Your task to perform on an android device: change the upload size in google photos Image 0: 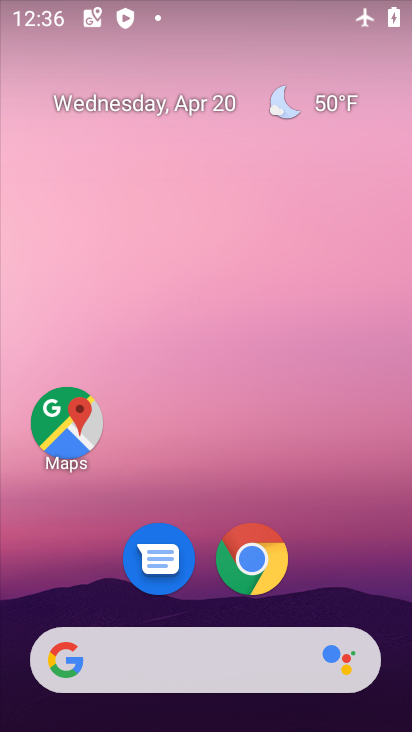
Step 0: drag from (306, 452) to (246, 57)
Your task to perform on an android device: change the upload size in google photos Image 1: 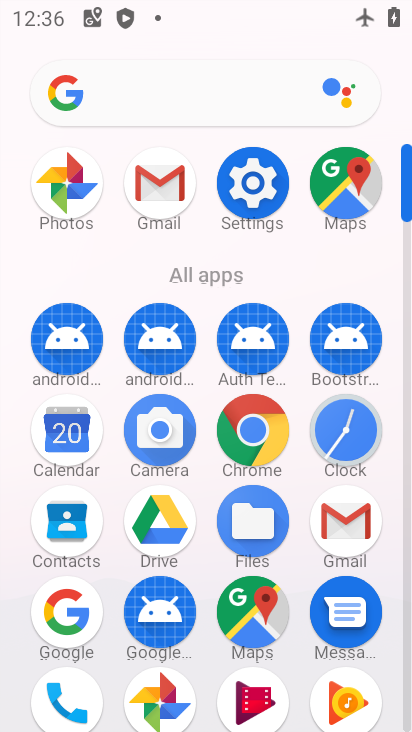
Step 1: click (158, 709)
Your task to perform on an android device: change the upload size in google photos Image 2: 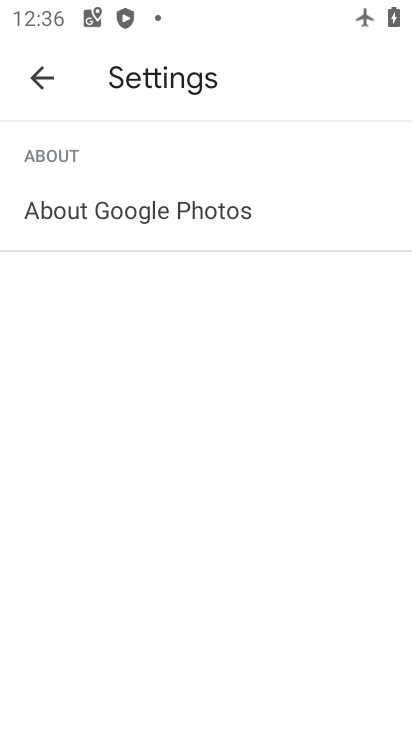
Step 2: click (44, 77)
Your task to perform on an android device: change the upload size in google photos Image 3: 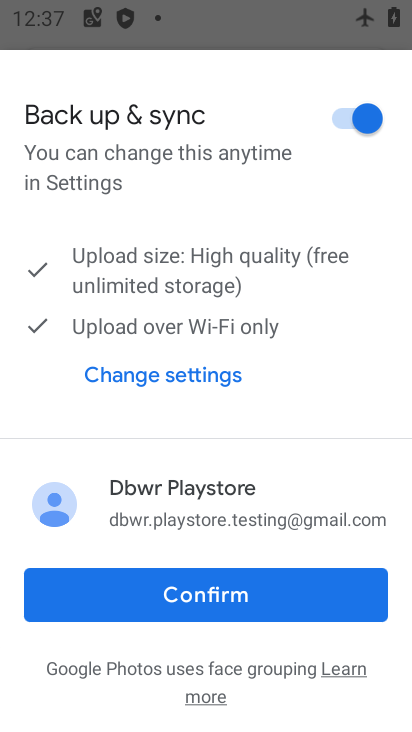
Step 3: click (185, 614)
Your task to perform on an android device: change the upload size in google photos Image 4: 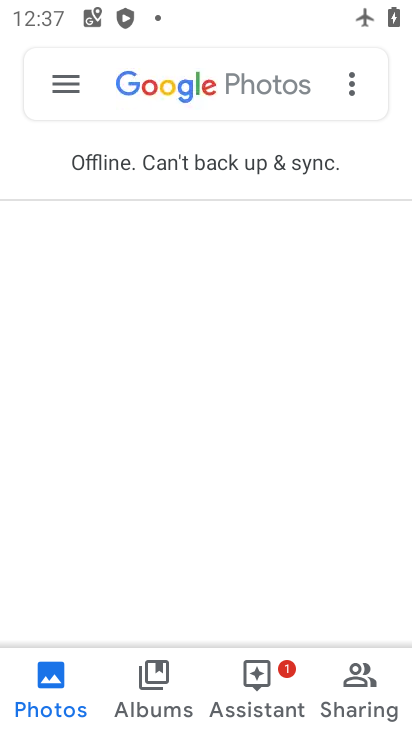
Step 4: click (49, 81)
Your task to perform on an android device: change the upload size in google photos Image 5: 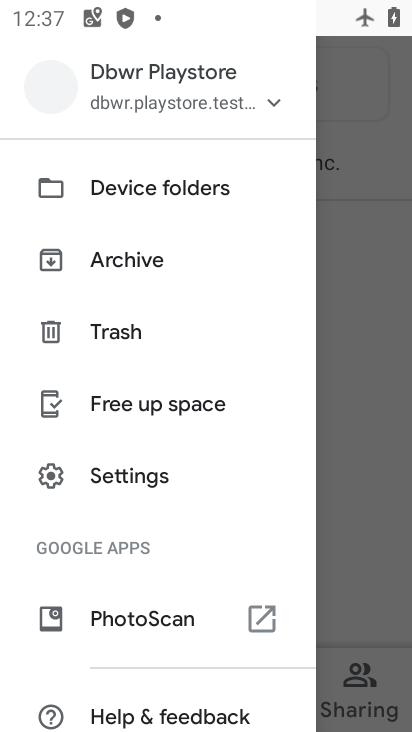
Step 5: click (125, 477)
Your task to perform on an android device: change the upload size in google photos Image 6: 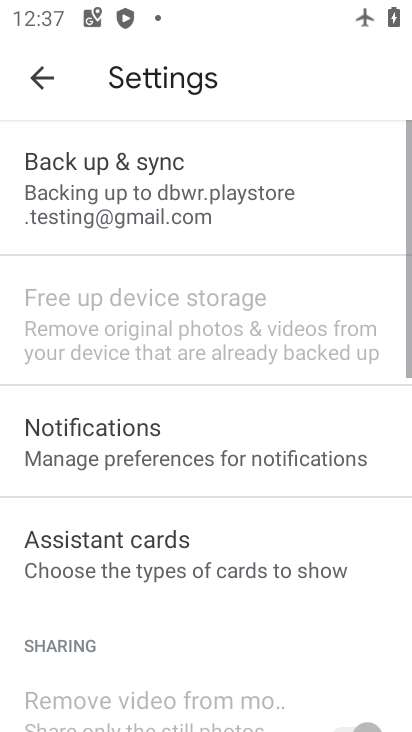
Step 6: click (128, 165)
Your task to perform on an android device: change the upload size in google photos Image 7: 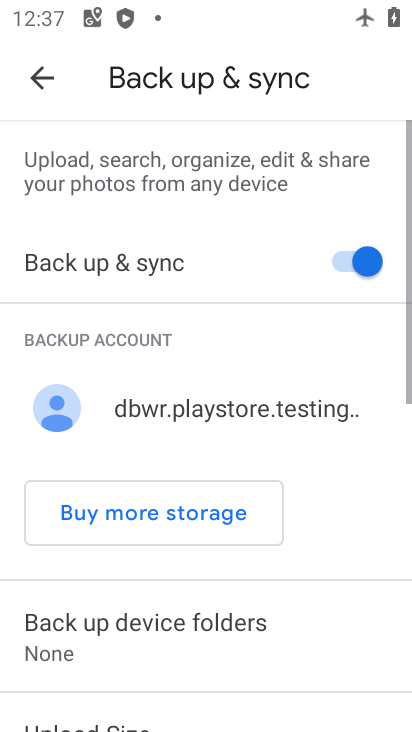
Step 7: drag from (139, 651) to (180, 286)
Your task to perform on an android device: change the upload size in google photos Image 8: 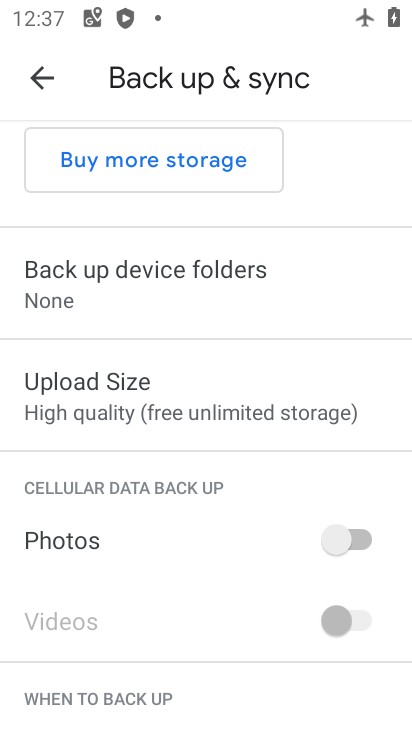
Step 8: click (169, 420)
Your task to perform on an android device: change the upload size in google photos Image 9: 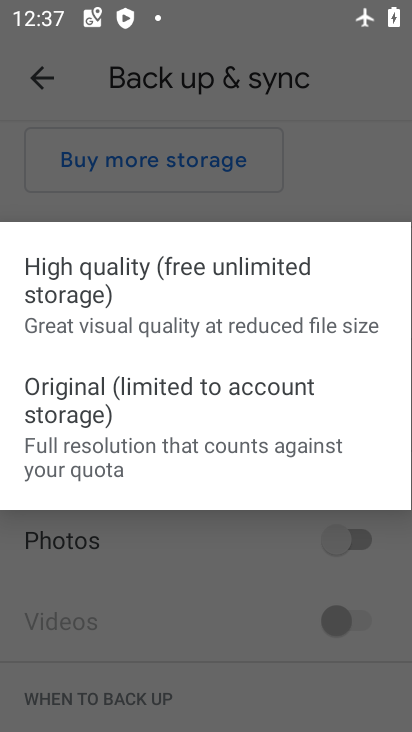
Step 9: click (169, 420)
Your task to perform on an android device: change the upload size in google photos Image 10: 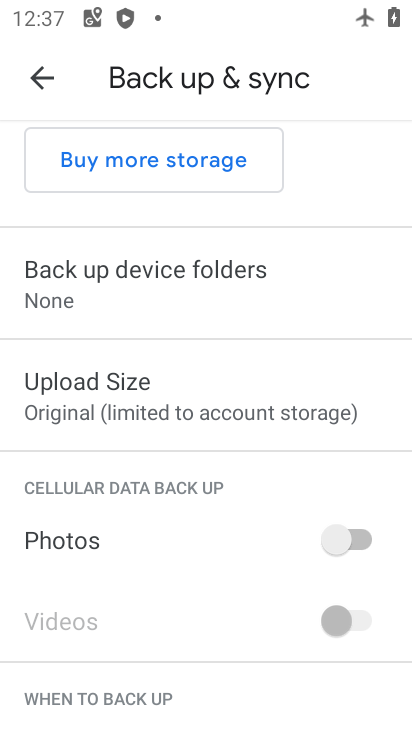
Step 10: task complete